Your task to perform on an android device: Open Google Maps and go to "Timeline" Image 0: 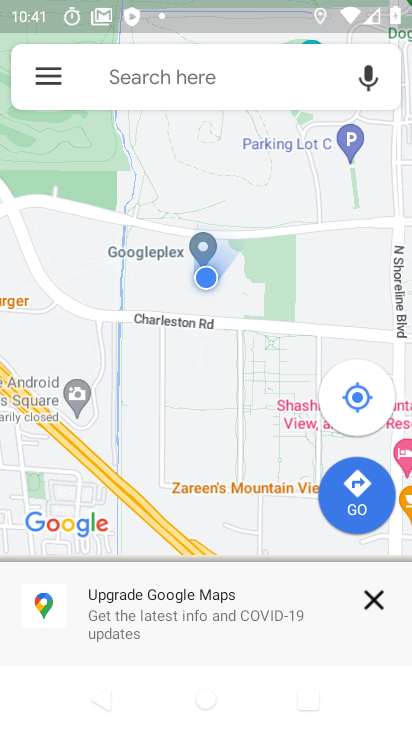
Step 0: click (38, 68)
Your task to perform on an android device: Open Google Maps and go to "Timeline" Image 1: 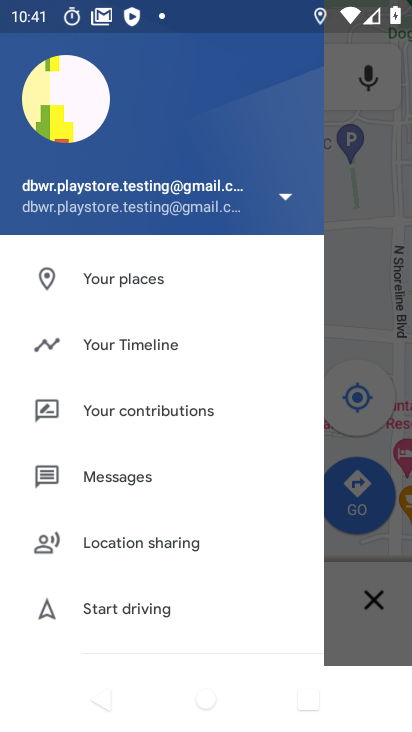
Step 1: click (118, 348)
Your task to perform on an android device: Open Google Maps and go to "Timeline" Image 2: 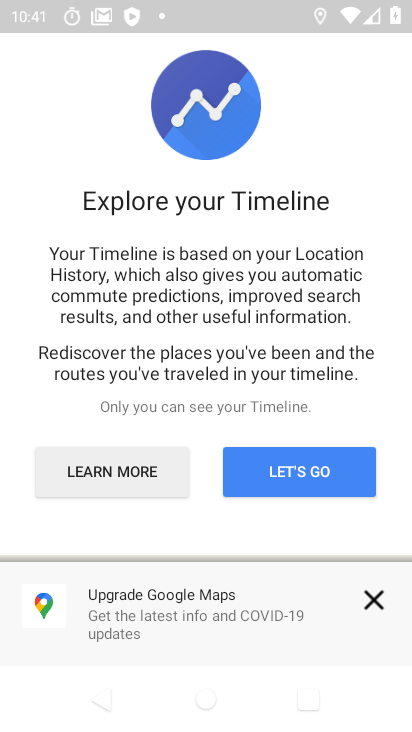
Step 2: click (306, 473)
Your task to perform on an android device: Open Google Maps and go to "Timeline" Image 3: 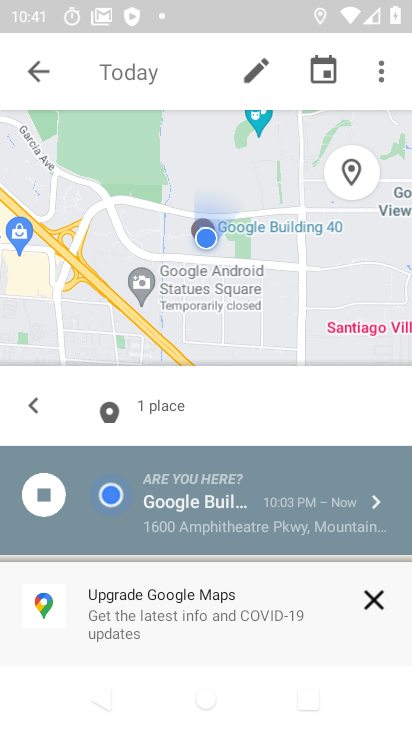
Step 3: task complete